Your task to perform on an android device: install app "Google Duo" Image 0: 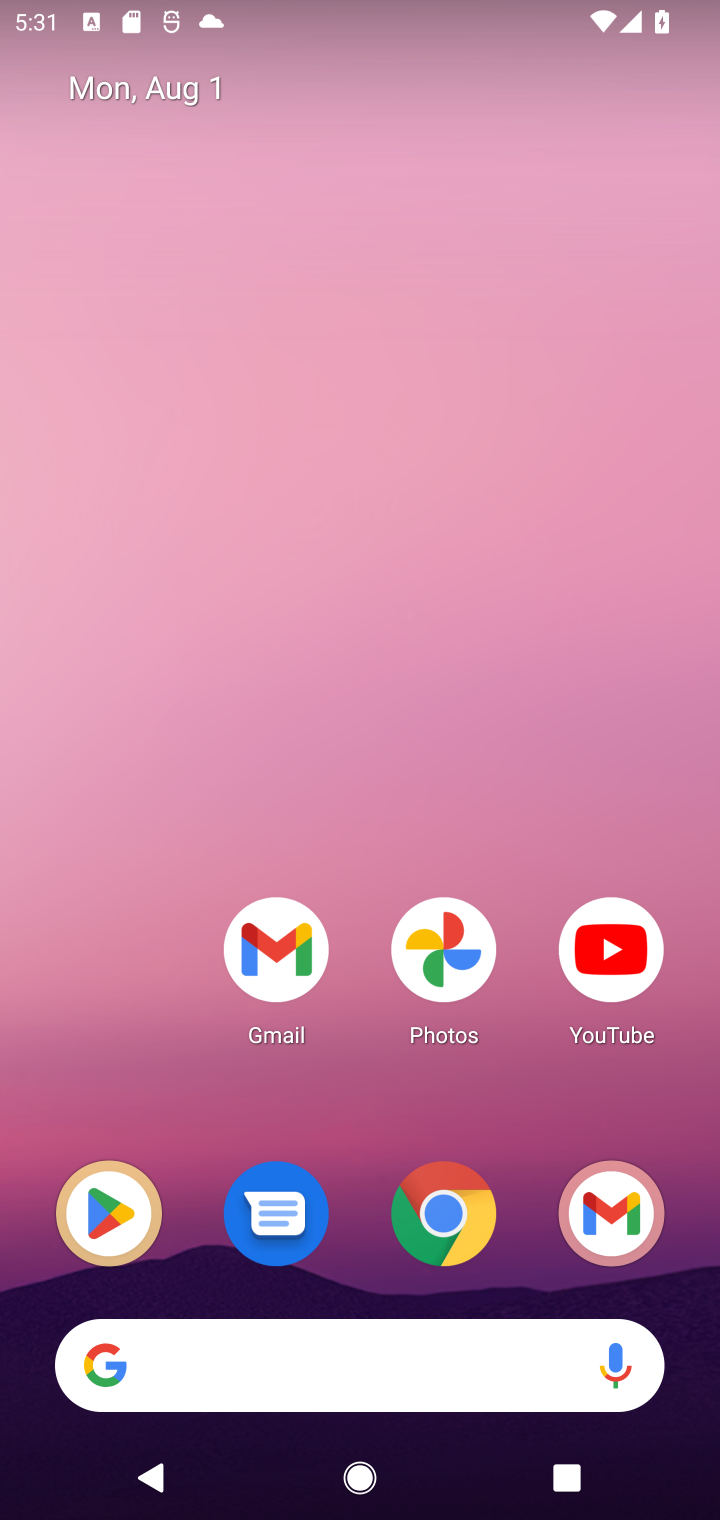
Step 0: drag from (512, 1109) to (562, 0)
Your task to perform on an android device: install app "Google Duo" Image 1: 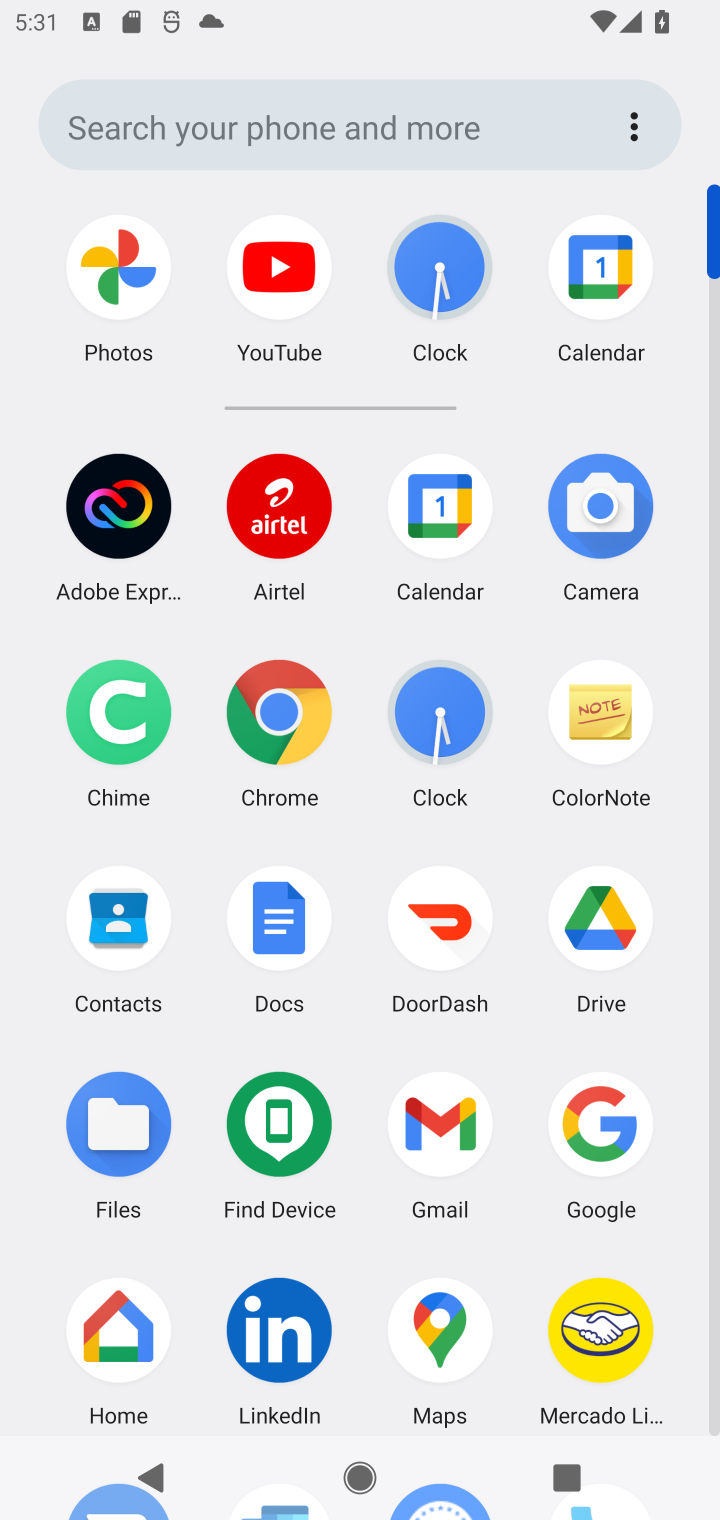
Step 1: drag from (524, 1250) to (558, 443)
Your task to perform on an android device: install app "Google Duo" Image 2: 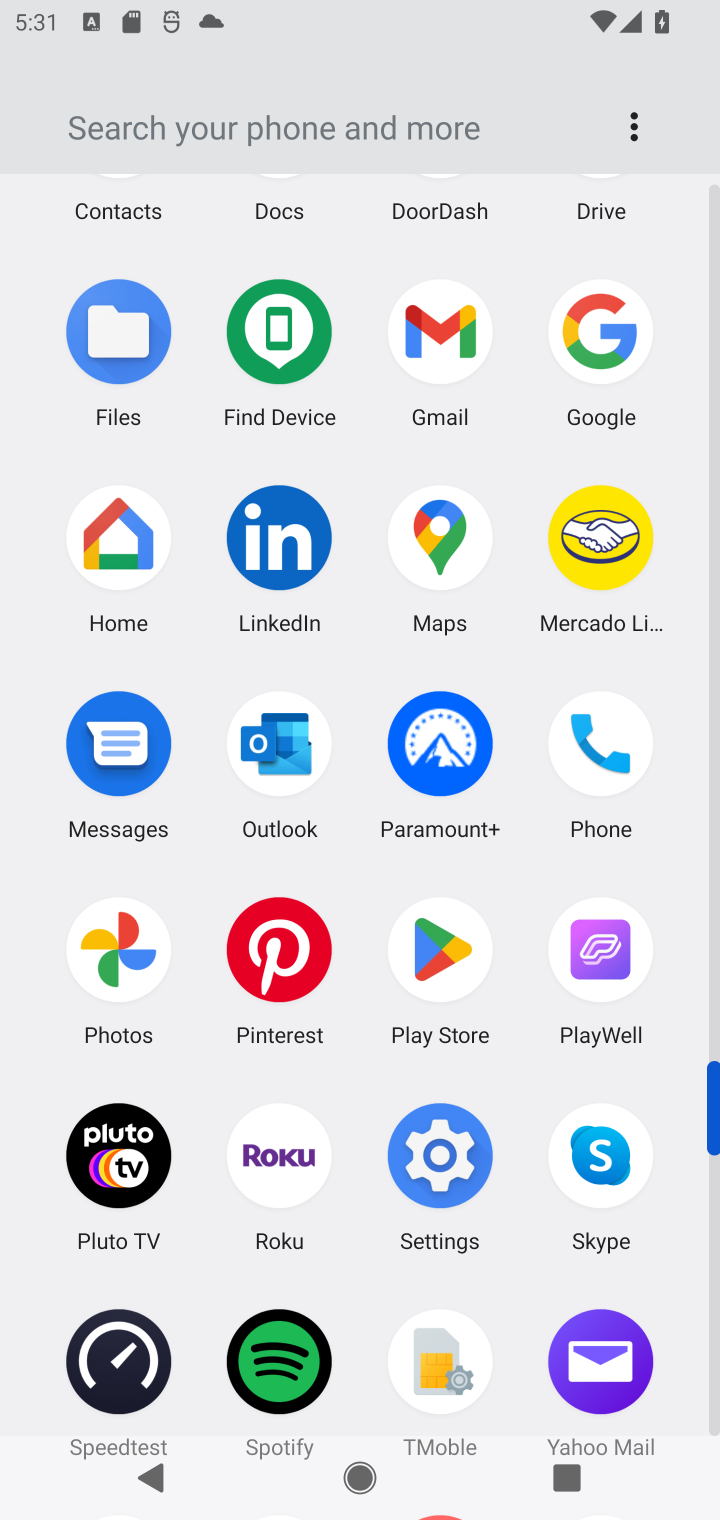
Step 2: click (461, 928)
Your task to perform on an android device: install app "Google Duo" Image 3: 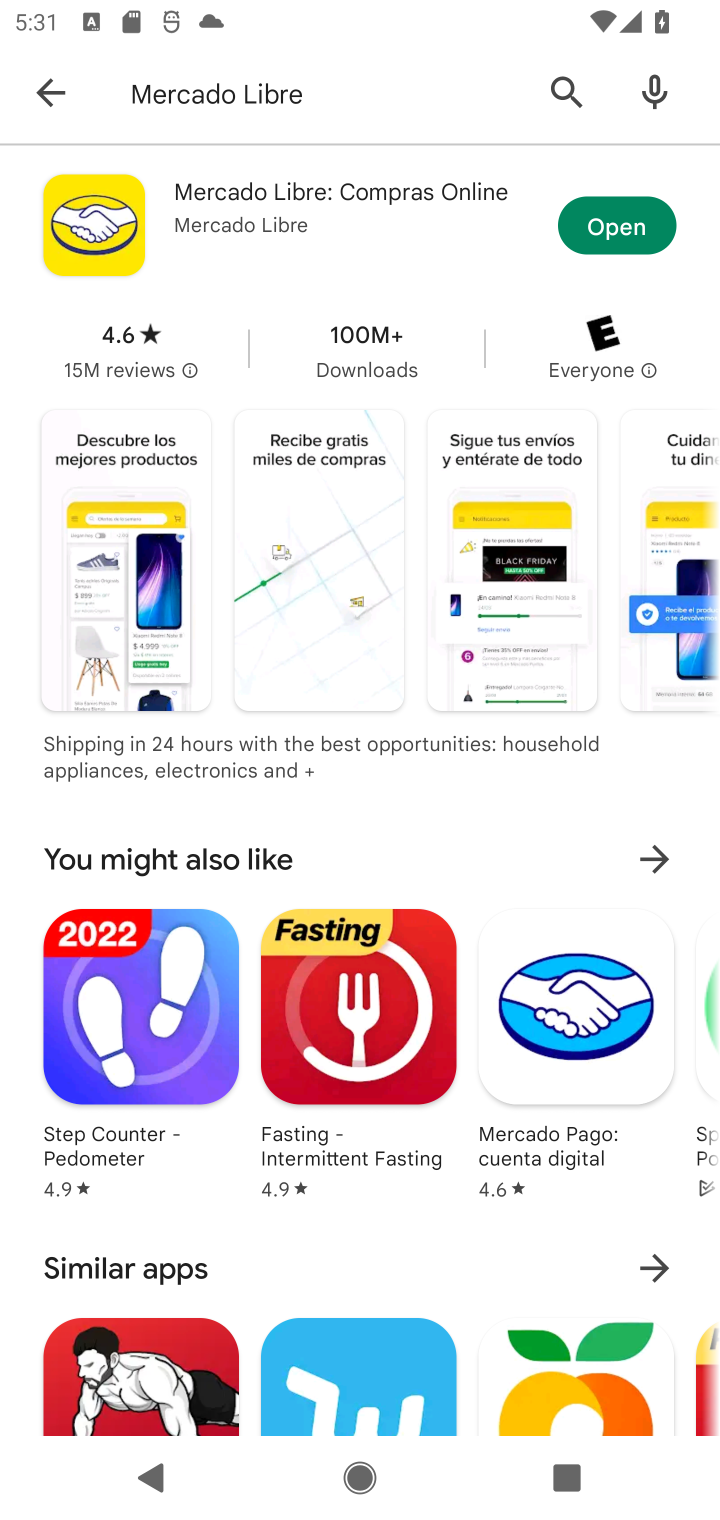
Step 3: click (466, 86)
Your task to perform on an android device: install app "Google Duo" Image 4: 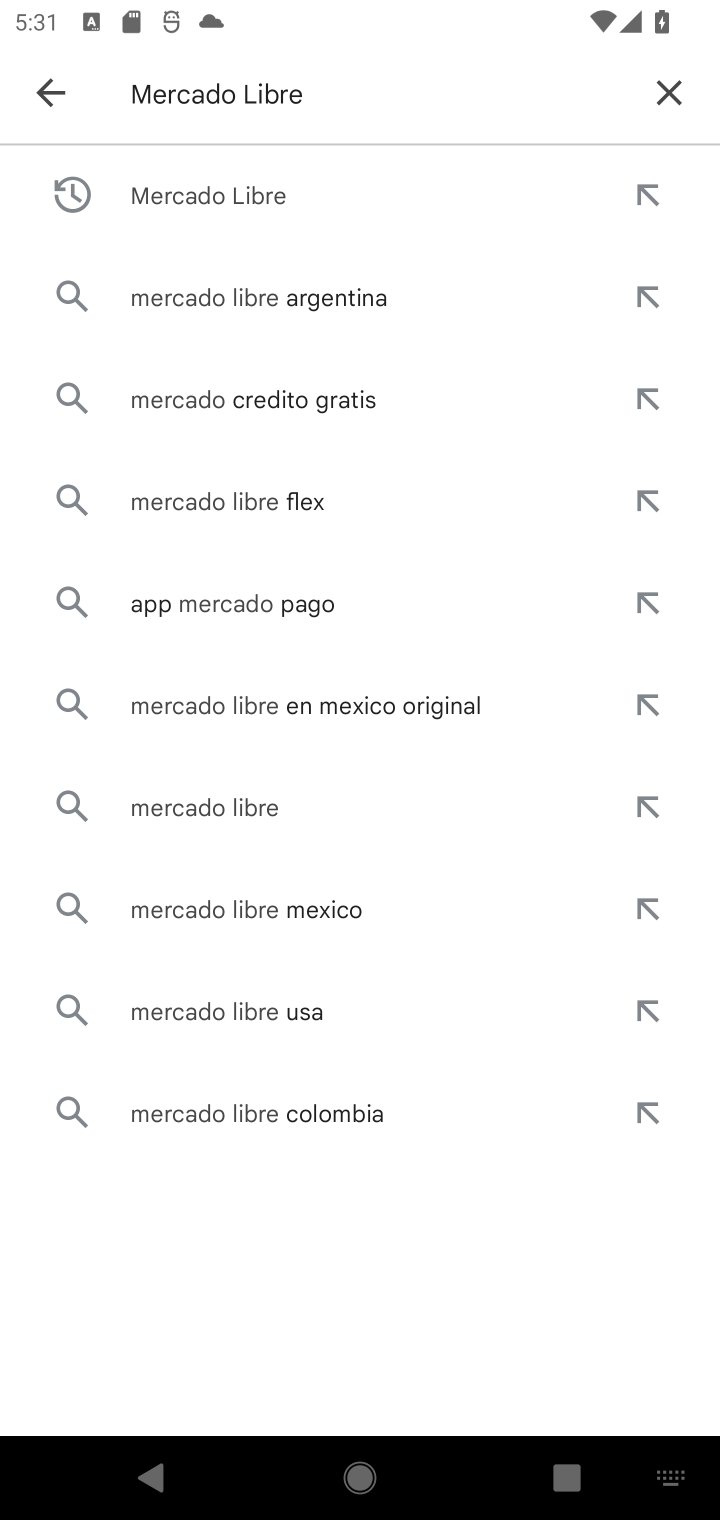
Step 4: click (662, 96)
Your task to perform on an android device: install app "Google Duo" Image 5: 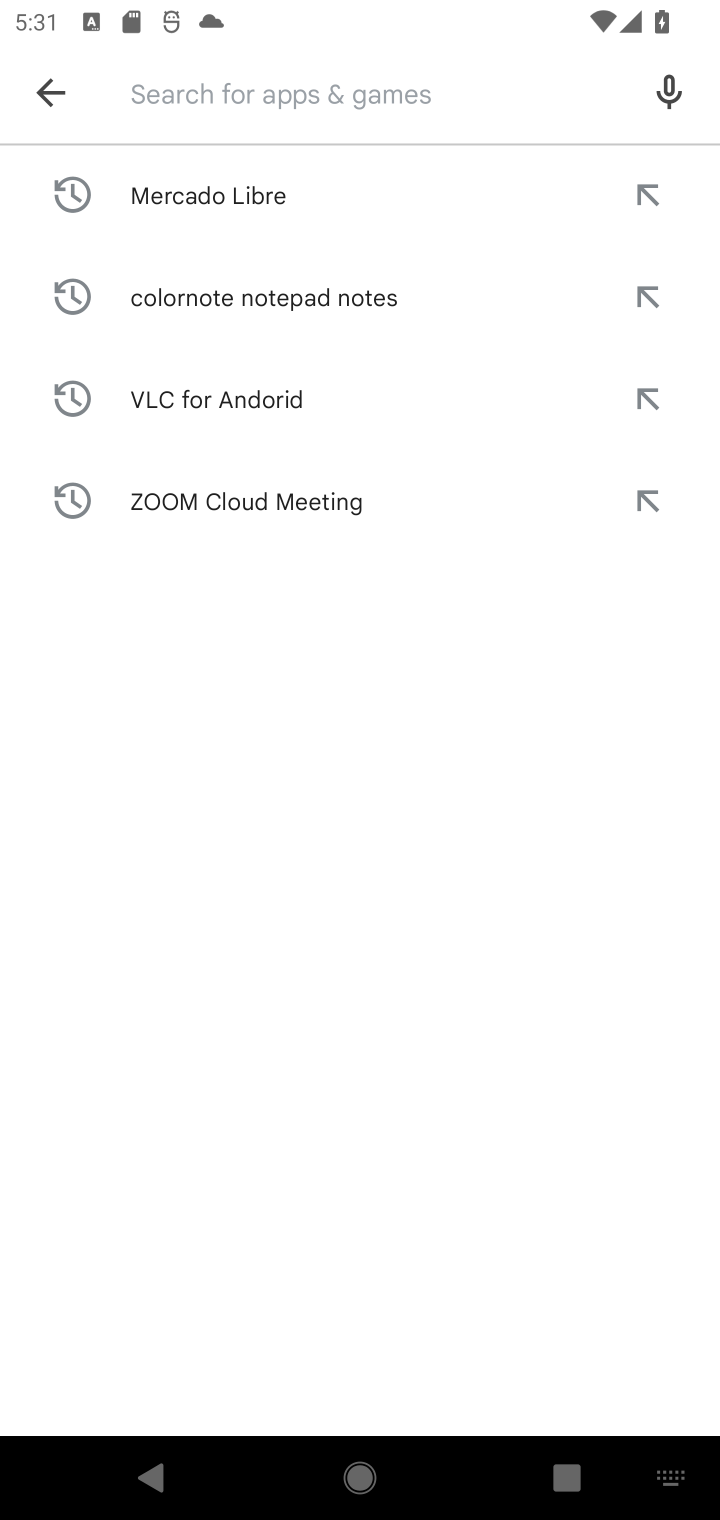
Step 5: type "Google Duo"
Your task to perform on an android device: install app "Google Duo" Image 6: 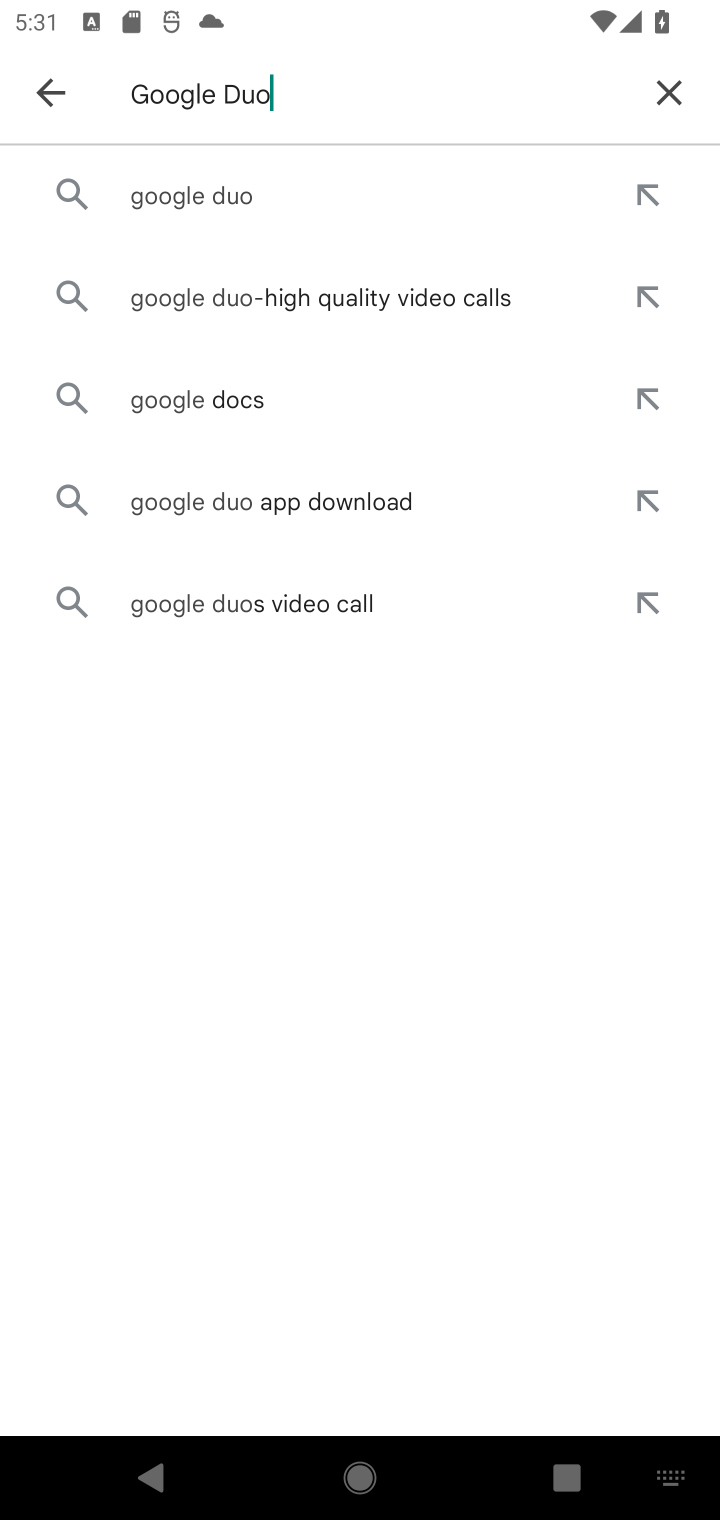
Step 6: press enter
Your task to perform on an android device: install app "Google Duo" Image 7: 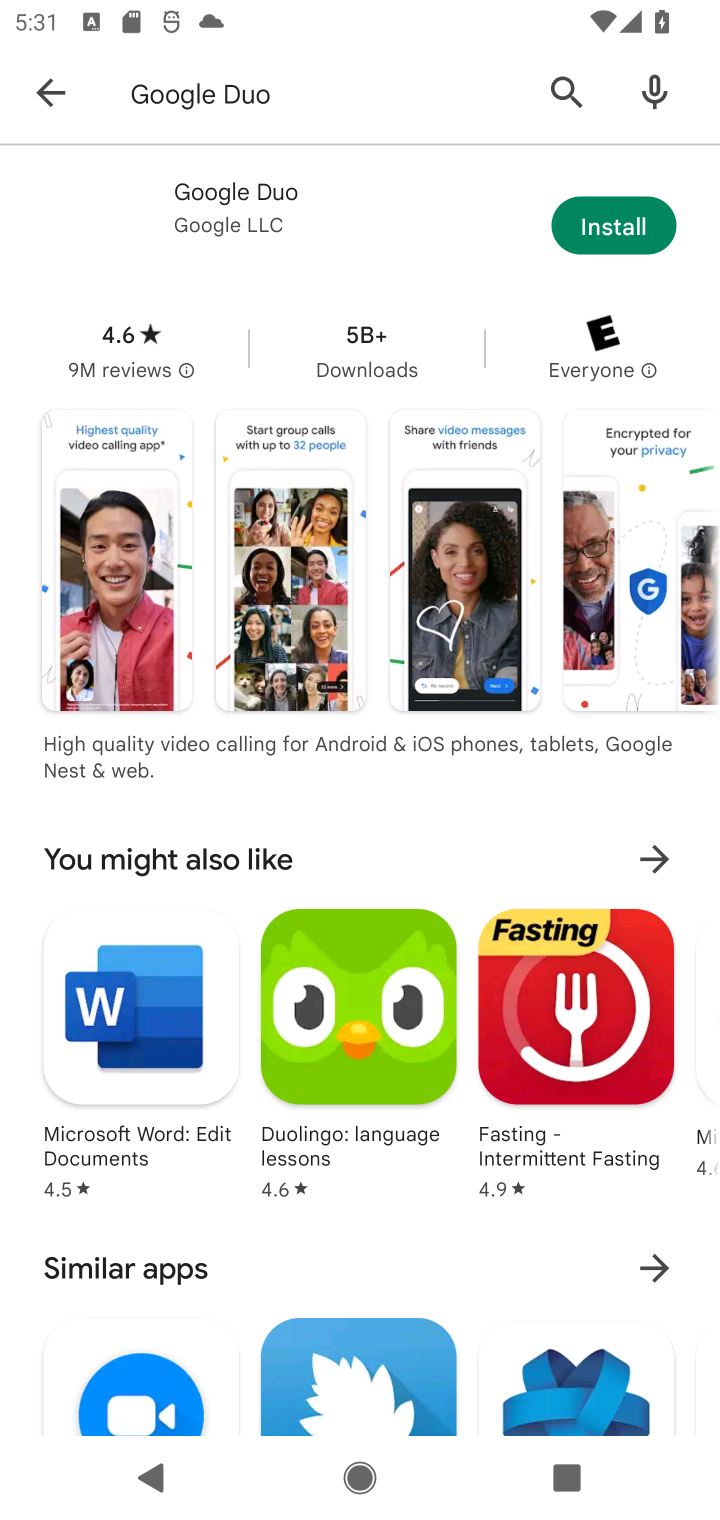
Step 7: click (601, 211)
Your task to perform on an android device: install app "Google Duo" Image 8: 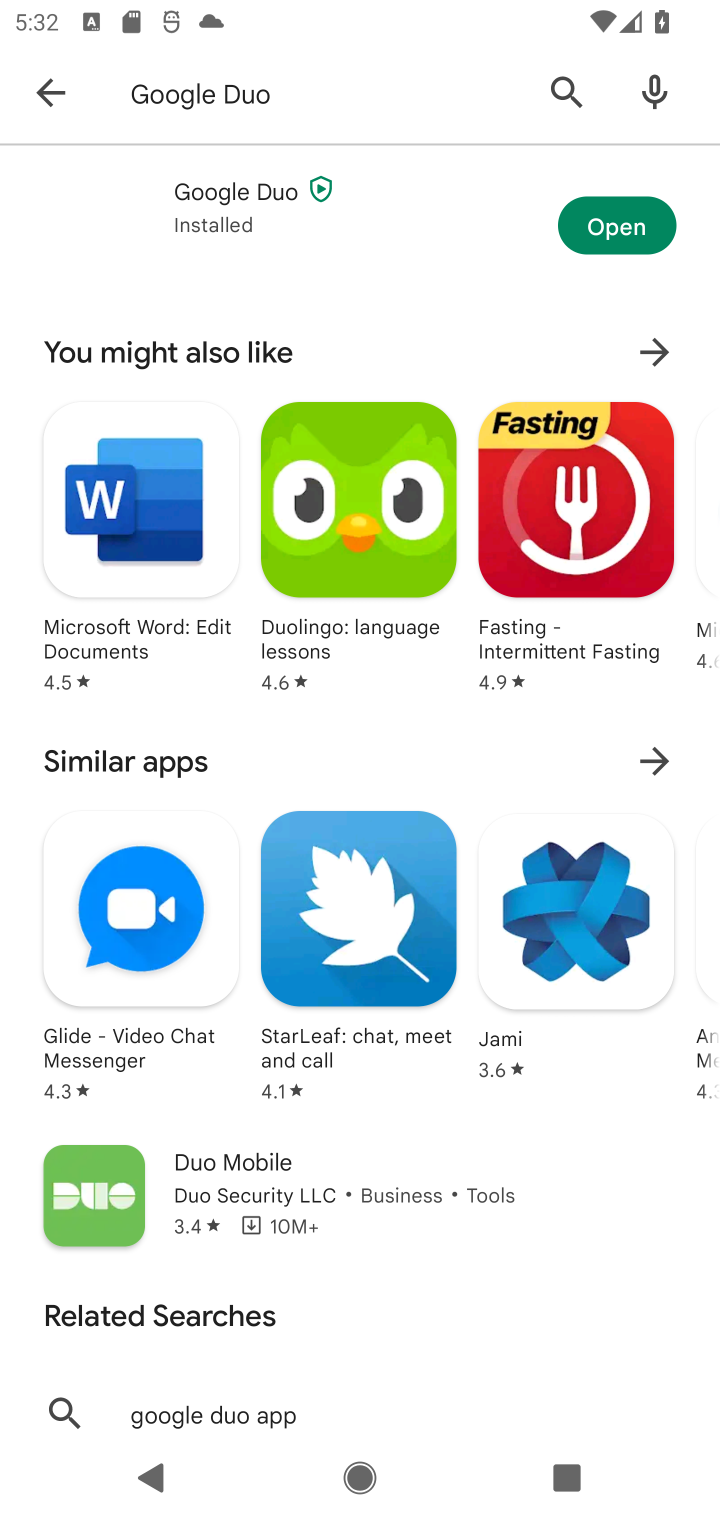
Step 8: task complete